Your task to perform on an android device: open app "Viber Messenger" Image 0: 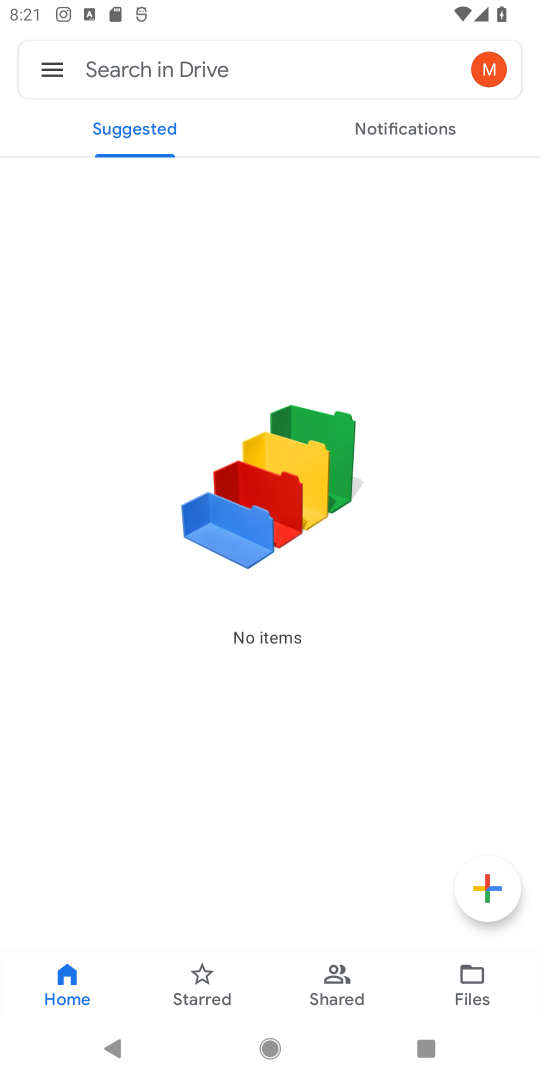
Step 0: press home button
Your task to perform on an android device: open app "Viber Messenger" Image 1: 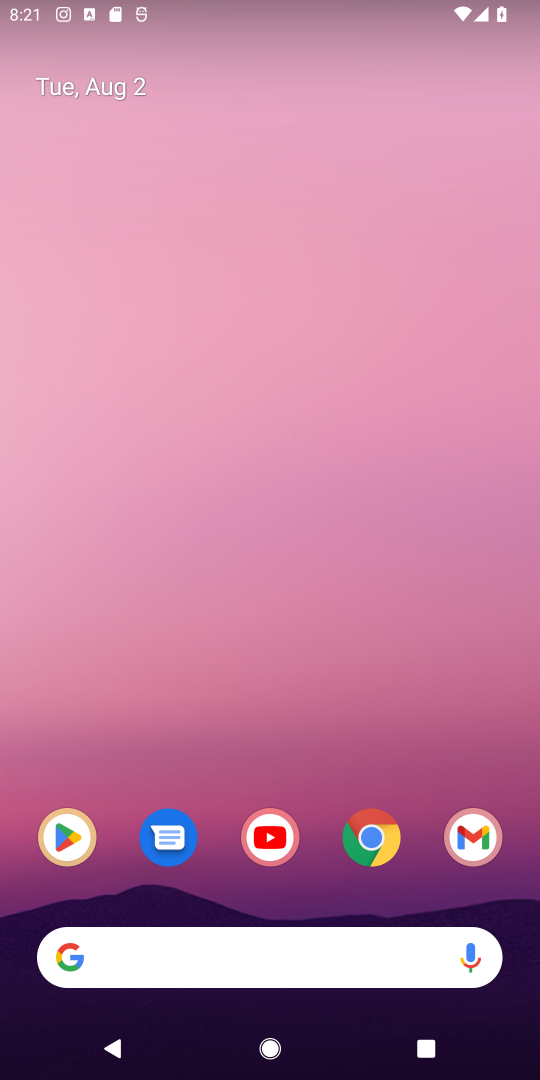
Step 1: click (68, 849)
Your task to perform on an android device: open app "Viber Messenger" Image 2: 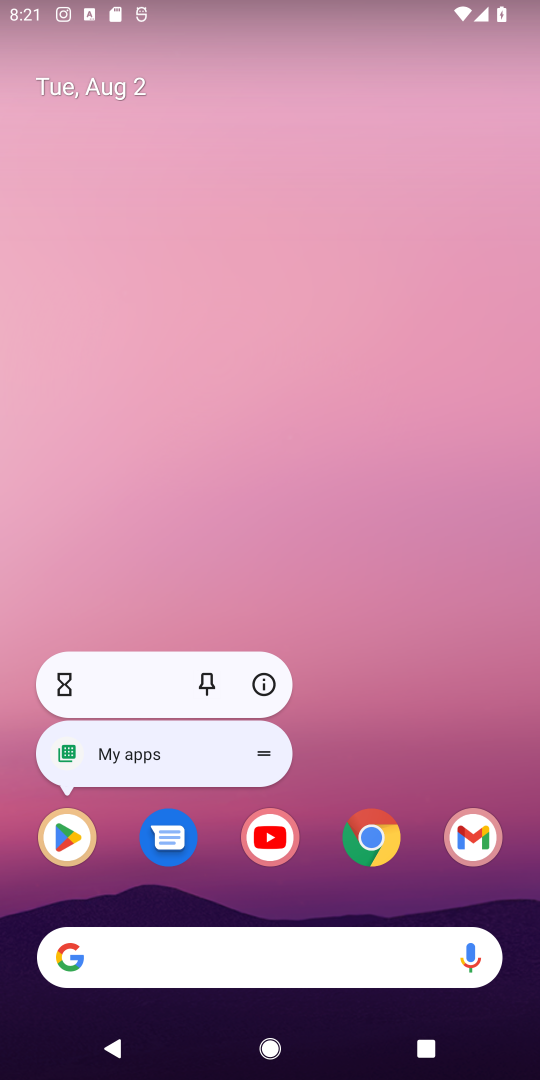
Step 2: click (68, 847)
Your task to perform on an android device: open app "Viber Messenger" Image 3: 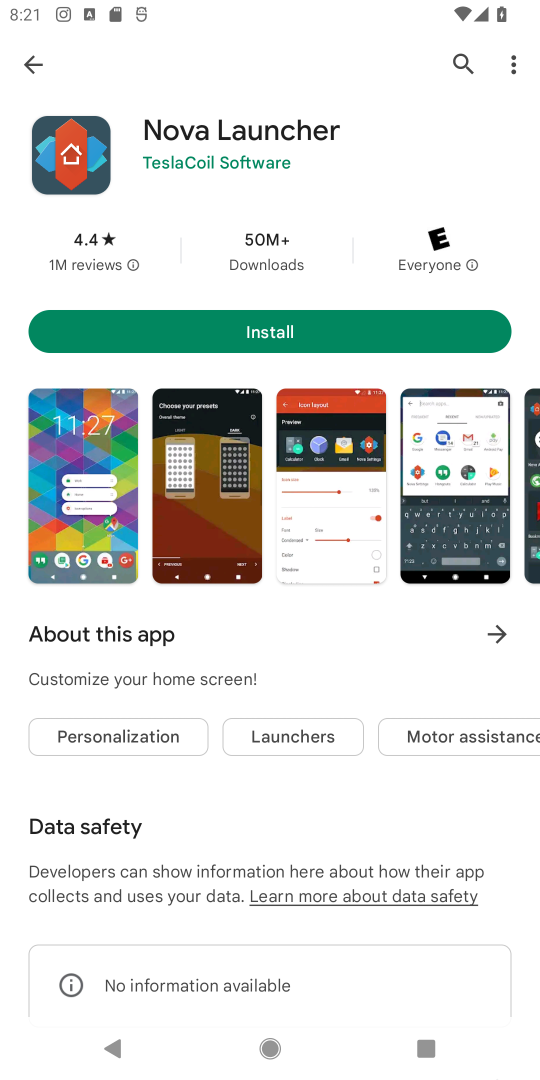
Step 3: click (462, 68)
Your task to perform on an android device: open app "Viber Messenger" Image 4: 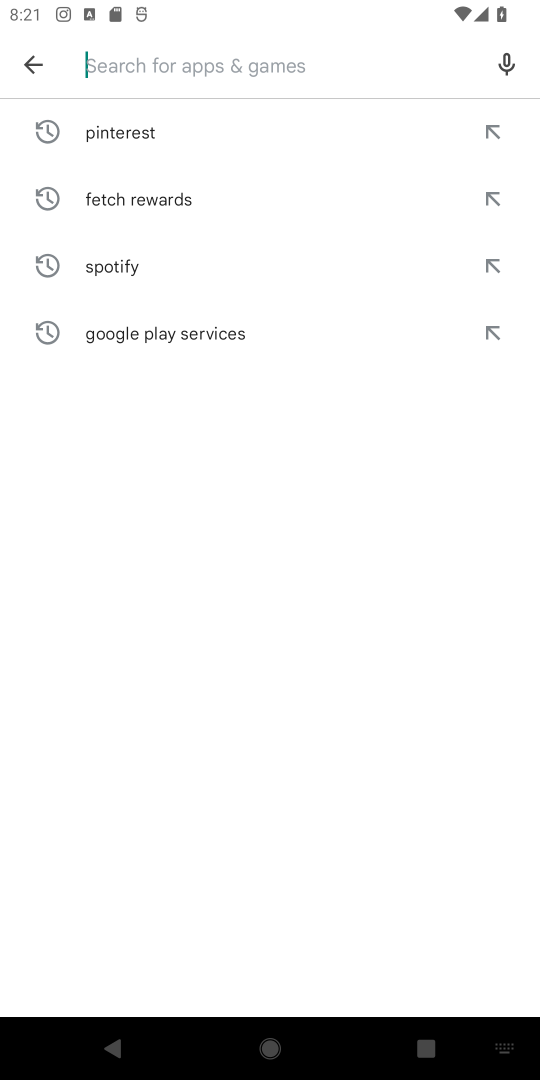
Step 4: type "Viber Messenger"
Your task to perform on an android device: open app "Viber Messenger" Image 5: 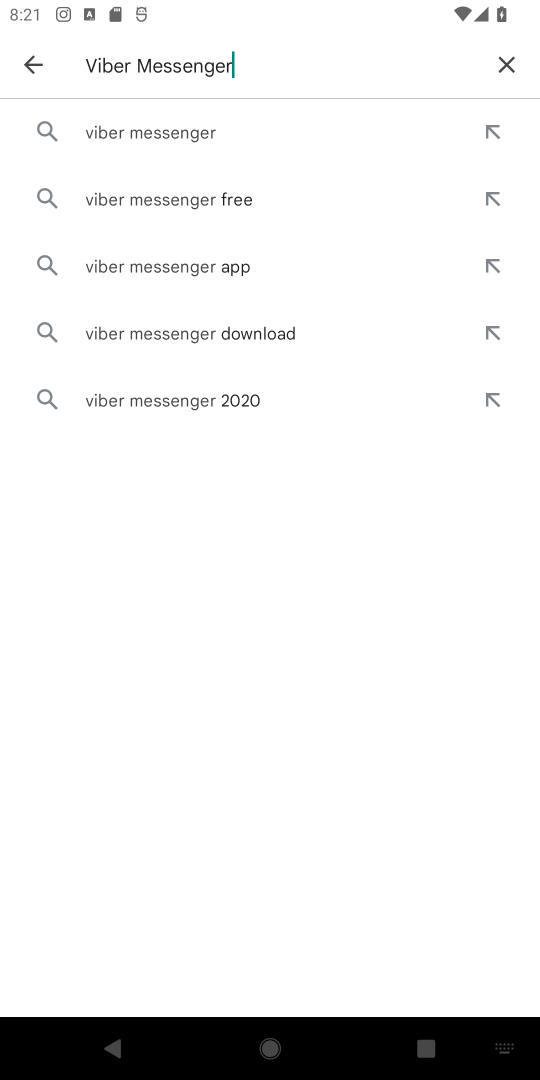
Step 5: click (119, 138)
Your task to perform on an android device: open app "Viber Messenger" Image 6: 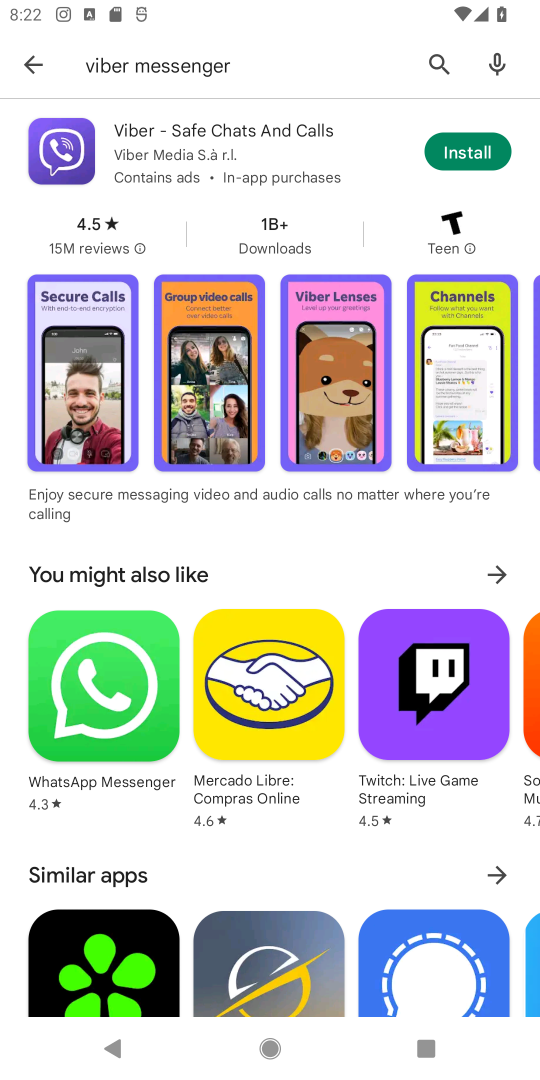
Step 6: task complete